Your task to perform on an android device: find photos in the google photos app Image 0: 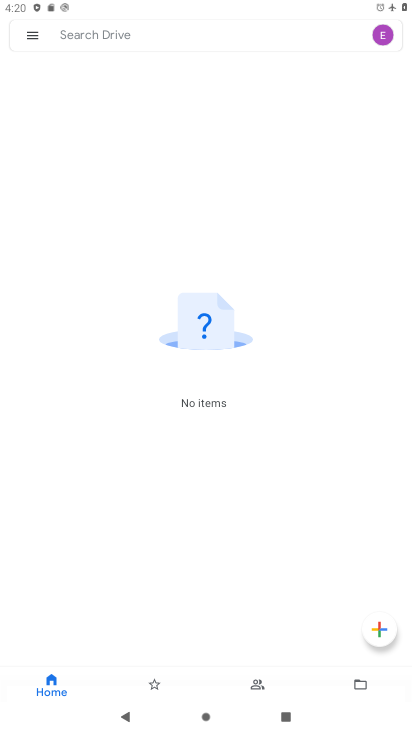
Step 0: press home button
Your task to perform on an android device: find photos in the google photos app Image 1: 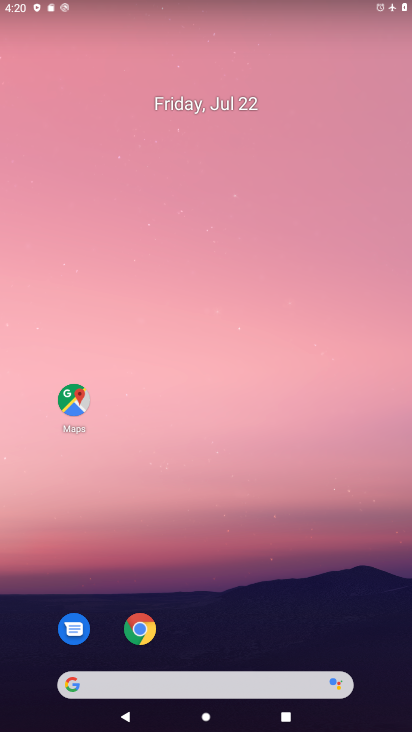
Step 1: drag from (272, 593) to (303, 111)
Your task to perform on an android device: find photos in the google photos app Image 2: 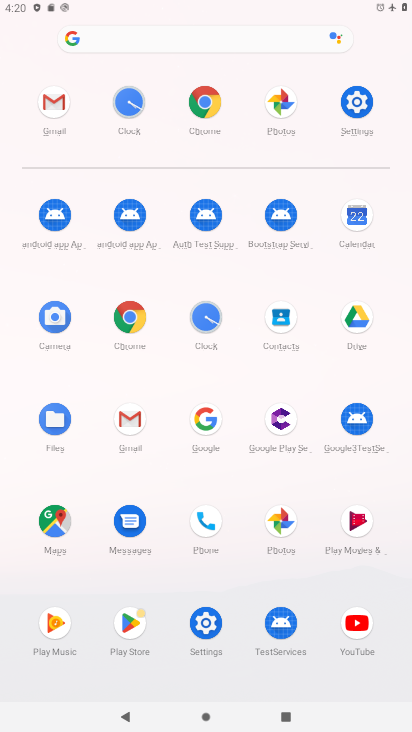
Step 2: click (293, 522)
Your task to perform on an android device: find photos in the google photos app Image 3: 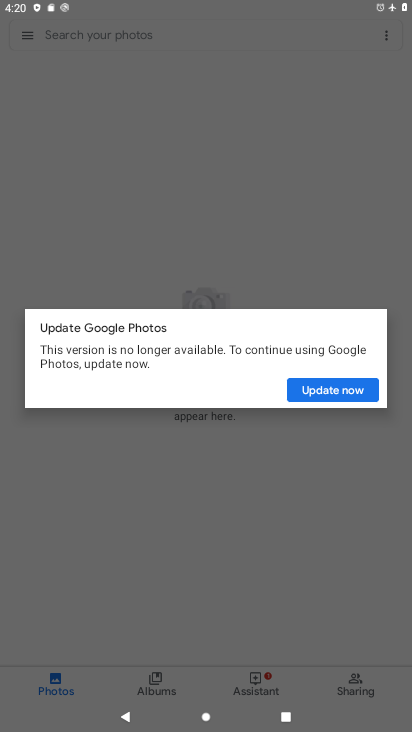
Step 3: click (368, 380)
Your task to perform on an android device: find photos in the google photos app Image 4: 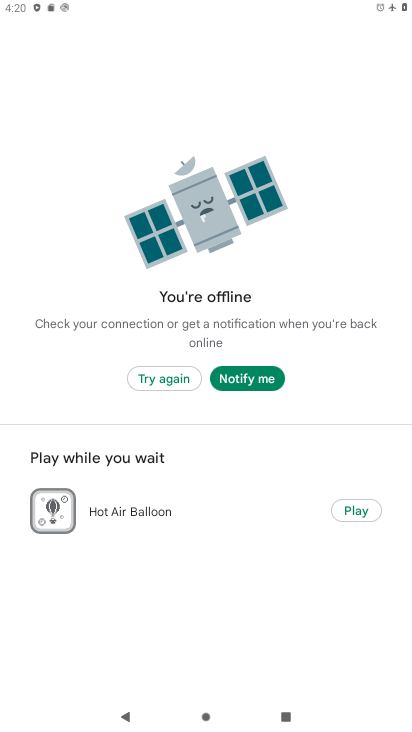
Step 4: task complete